Your task to perform on an android device: When is my next meeting? Image 0: 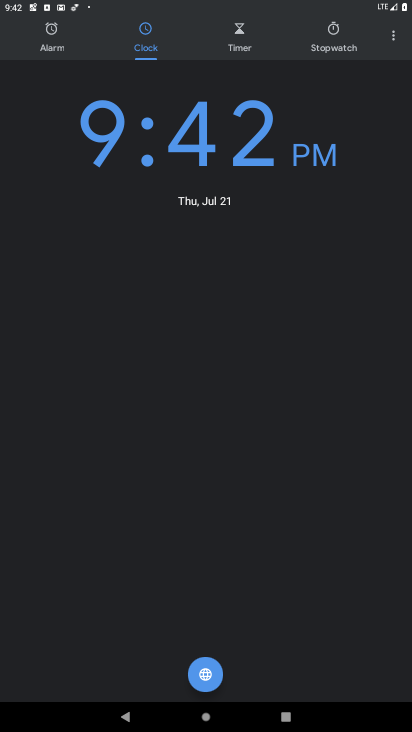
Step 0: press home button
Your task to perform on an android device: When is my next meeting? Image 1: 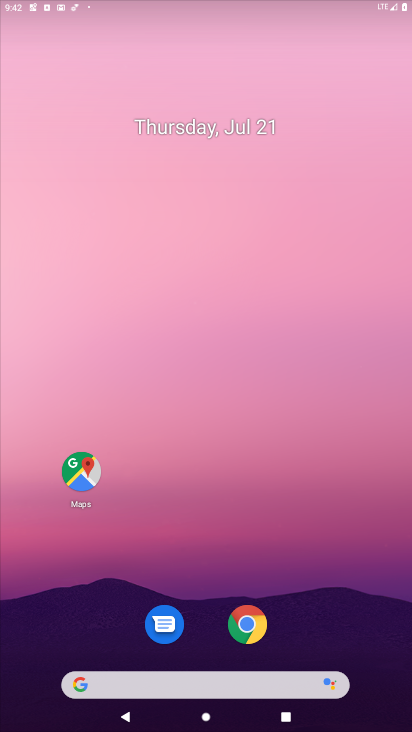
Step 1: drag from (37, 639) to (353, 88)
Your task to perform on an android device: When is my next meeting? Image 2: 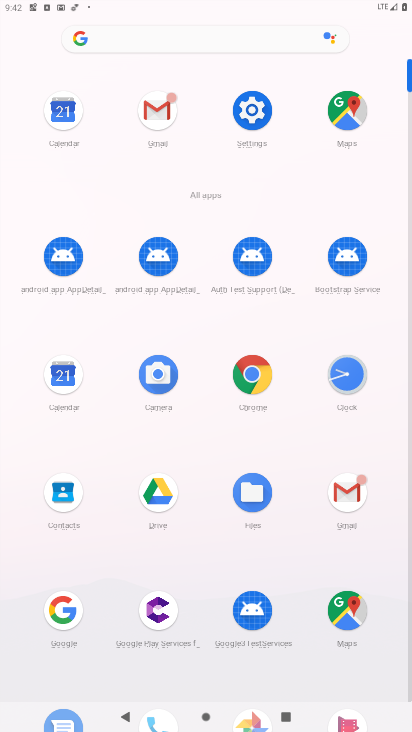
Step 2: click (54, 383)
Your task to perform on an android device: When is my next meeting? Image 3: 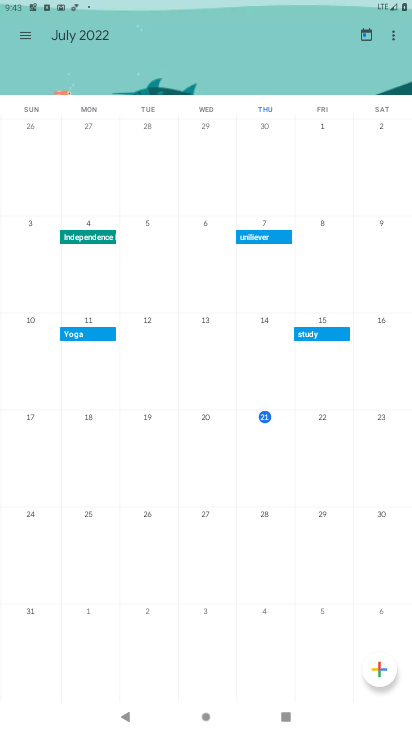
Step 3: click (276, 413)
Your task to perform on an android device: When is my next meeting? Image 4: 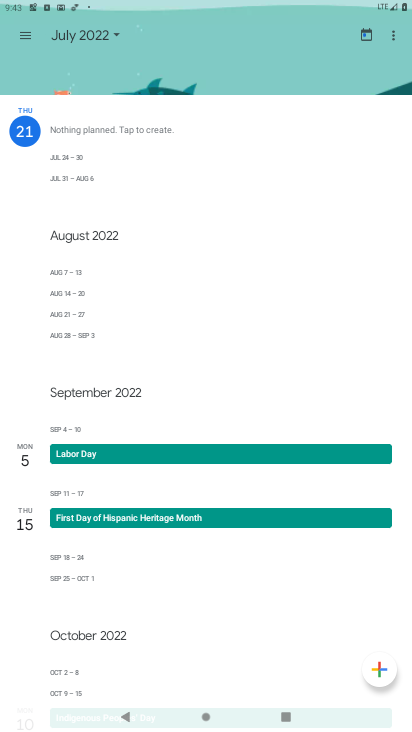
Step 4: task complete